Your task to perform on an android device: Search for lg ultragear on target.com, select the first entry, and add it to the cart. Image 0: 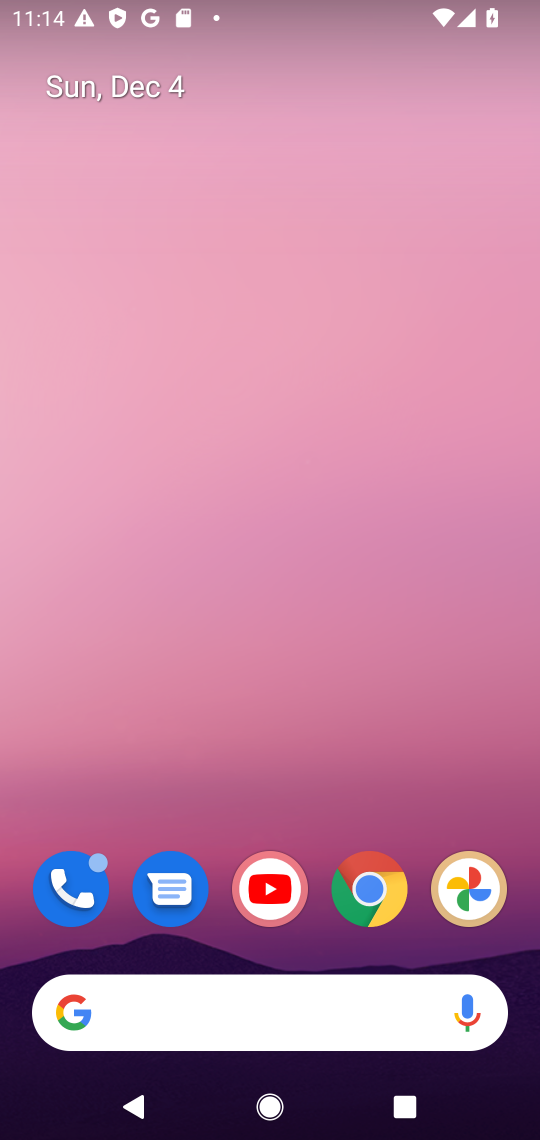
Step 0: click (363, 888)
Your task to perform on an android device: Search for lg ultragear on target.com, select the first entry, and add it to the cart. Image 1: 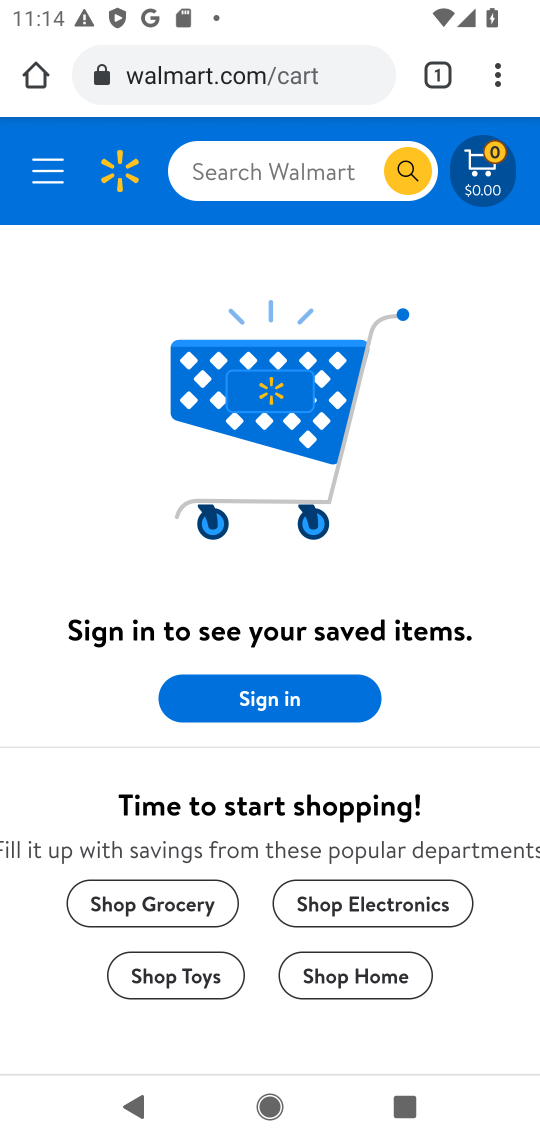
Step 1: click (291, 77)
Your task to perform on an android device: Search for lg ultragear on target.com, select the first entry, and add it to the cart. Image 2: 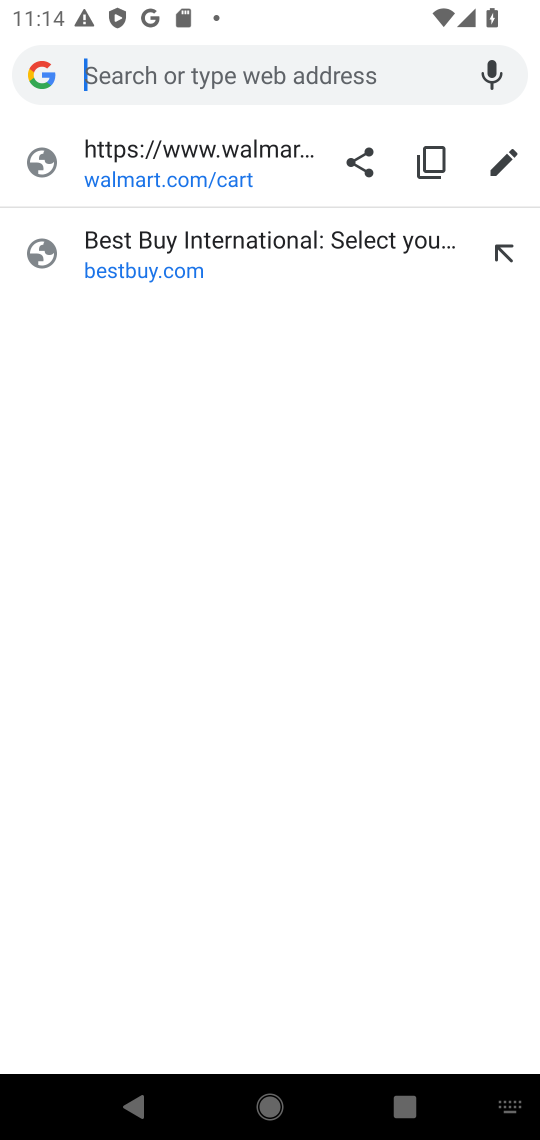
Step 2: type "target.com"
Your task to perform on an android device: Search for lg ultragear on target.com, select the first entry, and add it to the cart. Image 3: 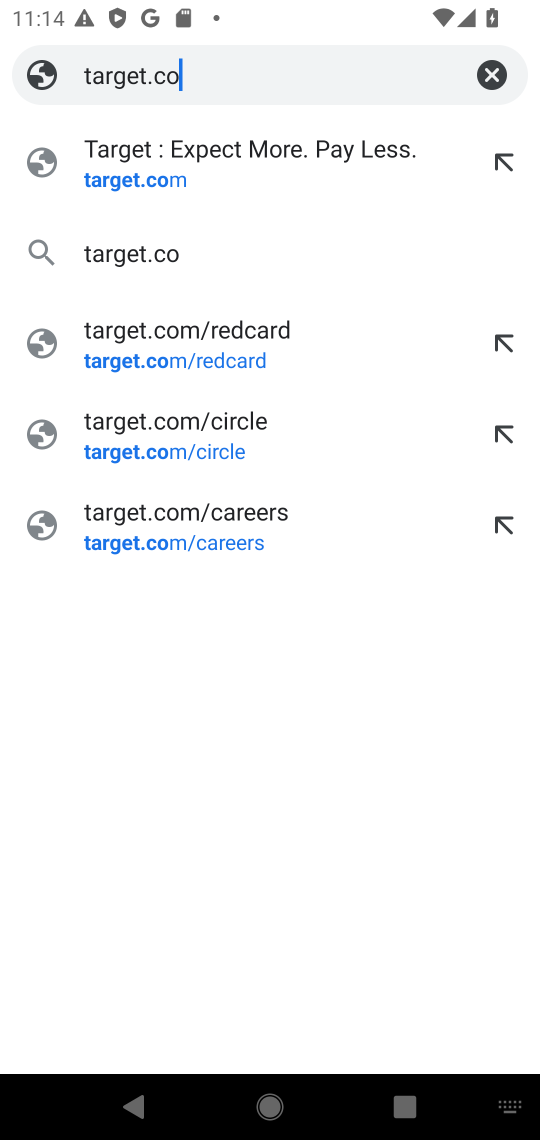
Step 3: press enter
Your task to perform on an android device: Search for lg ultragear on target.com, select the first entry, and add it to the cart. Image 4: 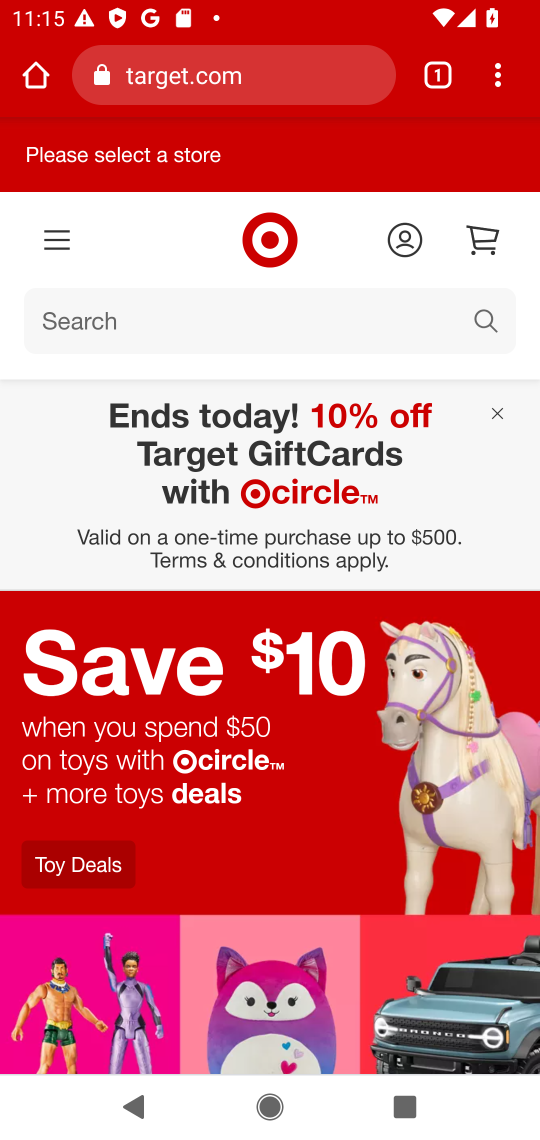
Step 4: click (479, 323)
Your task to perform on an android device: Search for lg ultragear on target.com, select the first entry, and add it to the cart. Image 5: 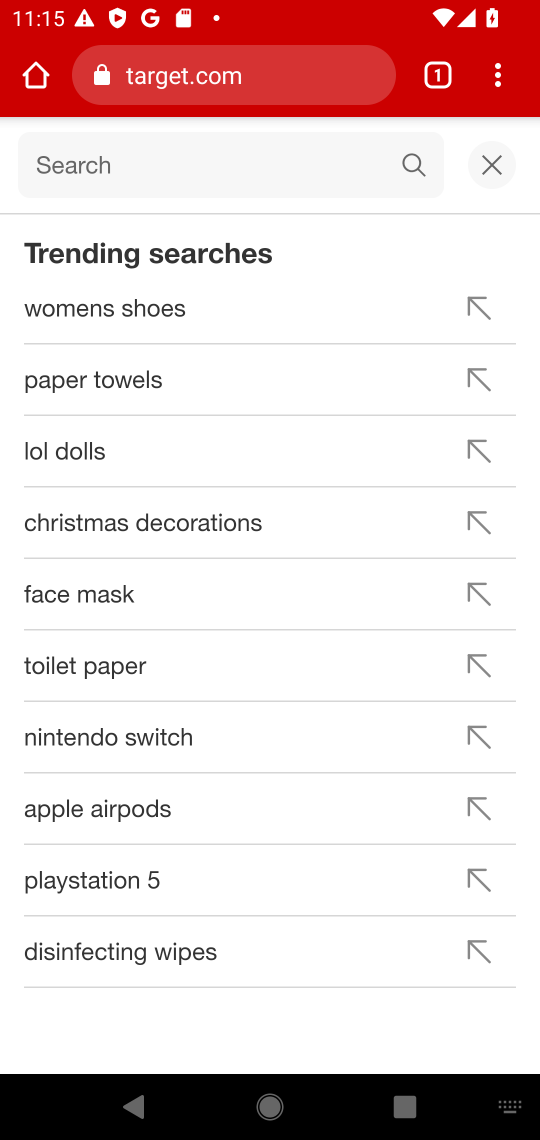
Step 5: type " lg ultragear"
Your task to perform on an android device: Search for lg ultragear on target.com, select the first entry, and add it to the cart. Image 6: 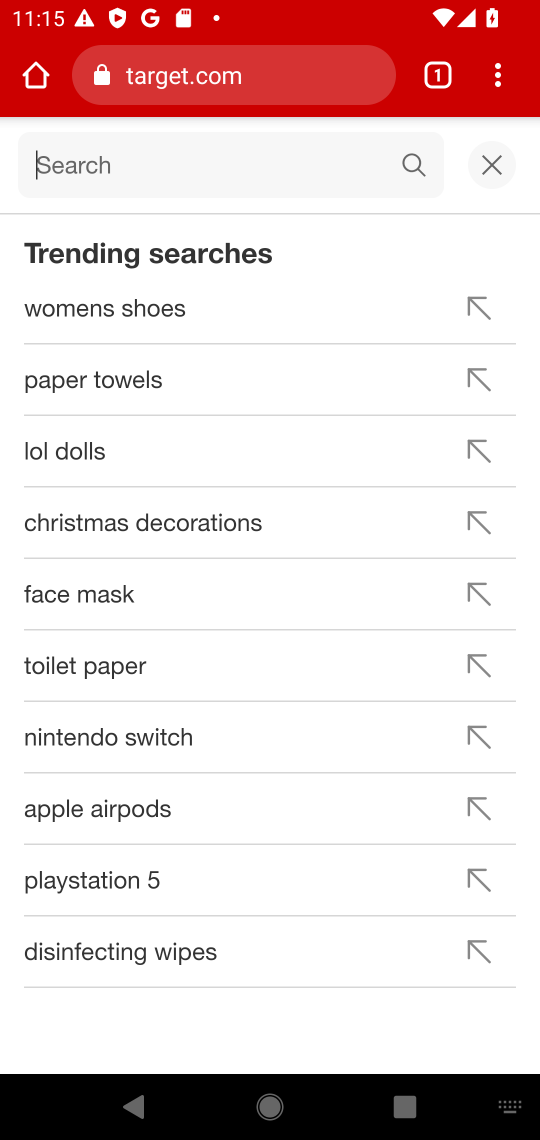
Step 6: press enter
Your task to perform on an android device: Search for lg ultragear on target.com, select the first entry, and add it to the cart. Image 7: 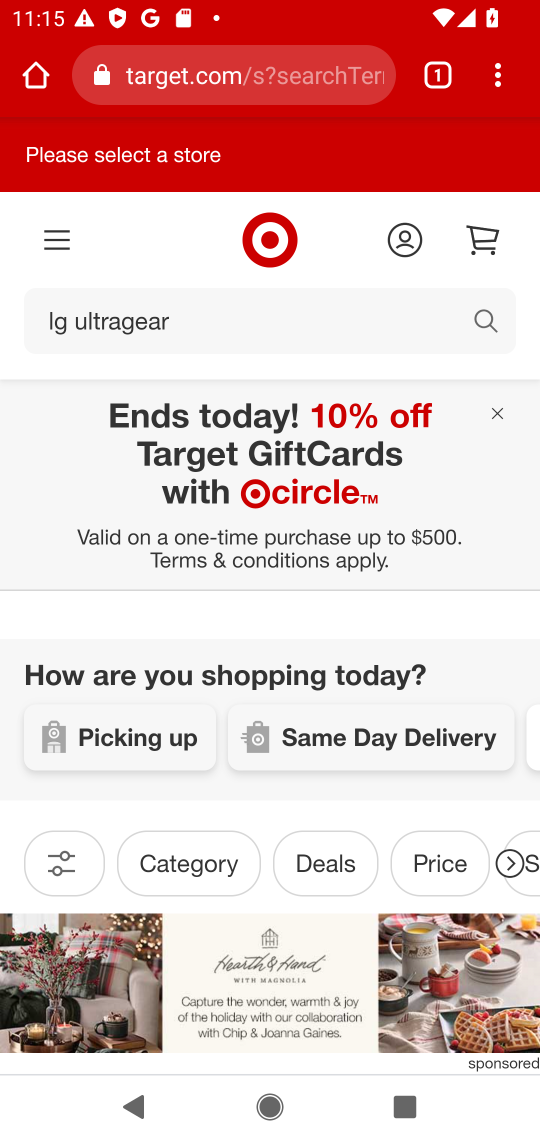
Step 7: drag from (324, 933) to (266, 340)
Your task to perform on an android device: Search for lg ultragear on target.com, select the first entry, and add it to the cart. Image 8: 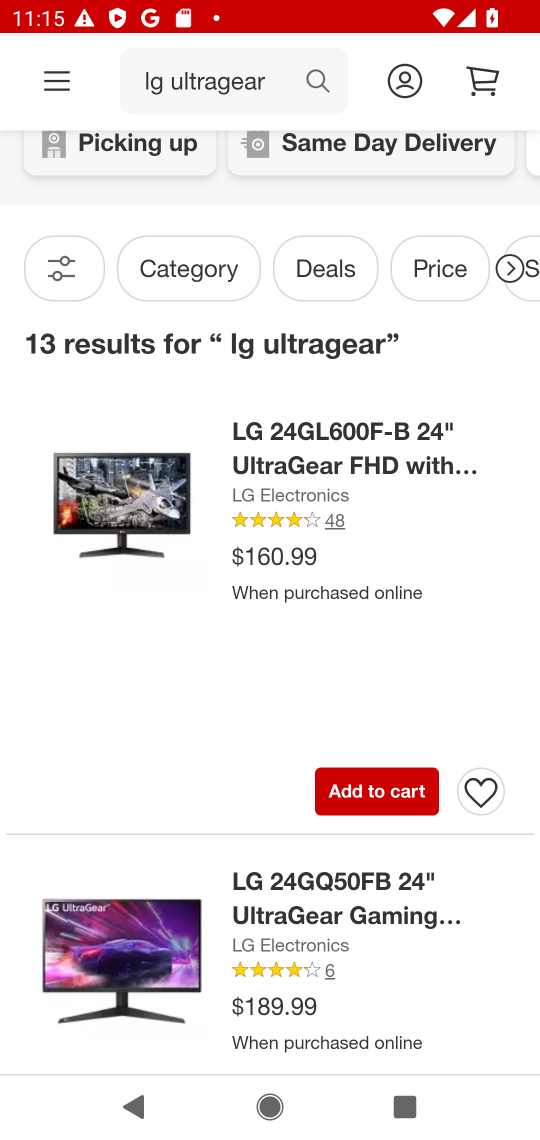
Step 8: click (72, 534)
Your task to perform on an android device: Search for lg ultragear on target.com, select the first entry, and add it to the cart. Image 9: 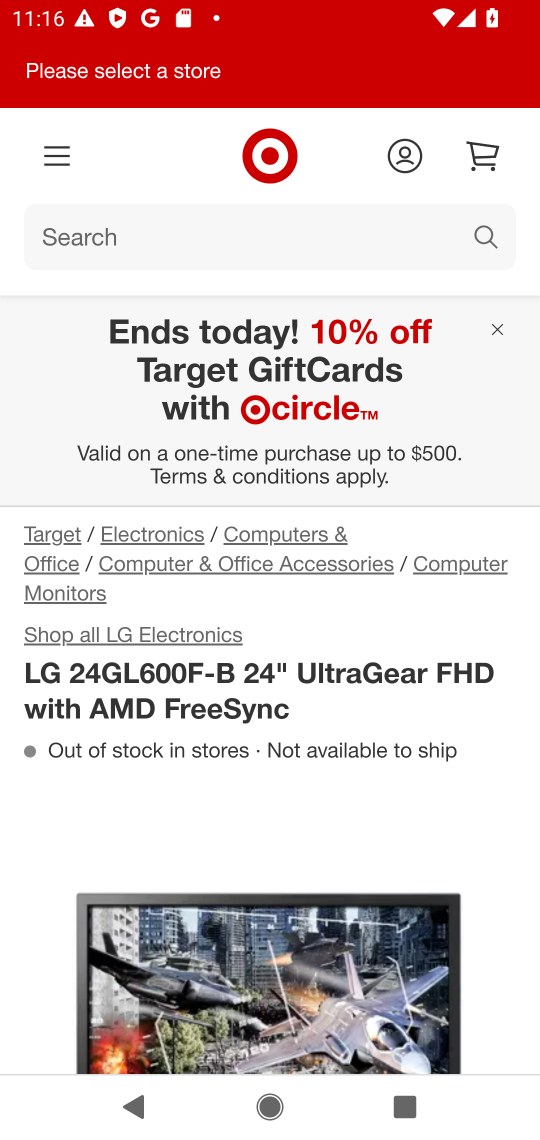
Step 9: click (391, 258)
Your task to perform on an android device: Search for lg ultragear on target.com, select the first entry, and add it to the cart. Image 10: 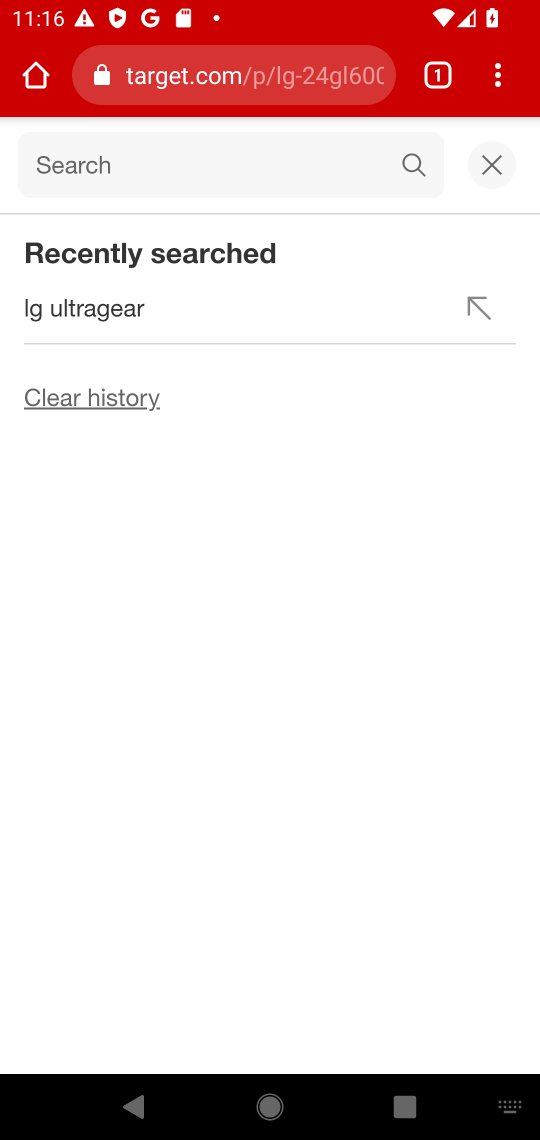
Step 10: click (126, 308)
Your task to perform on an android device: Search for lg ultragear on target.com, select the first entry, and add it to the cart. Image 11: 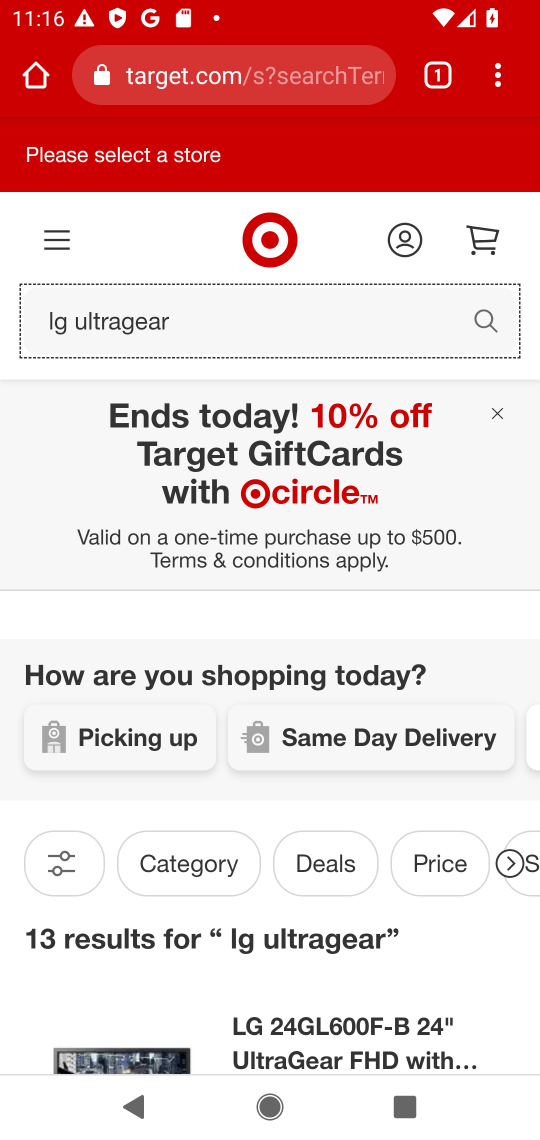
Step 11: drag from (387, 793) to (367, 290)
Your task to perform on an android device: Search for lg ultragear on target.com, select the first entry, and add it to the cart. Image 12: 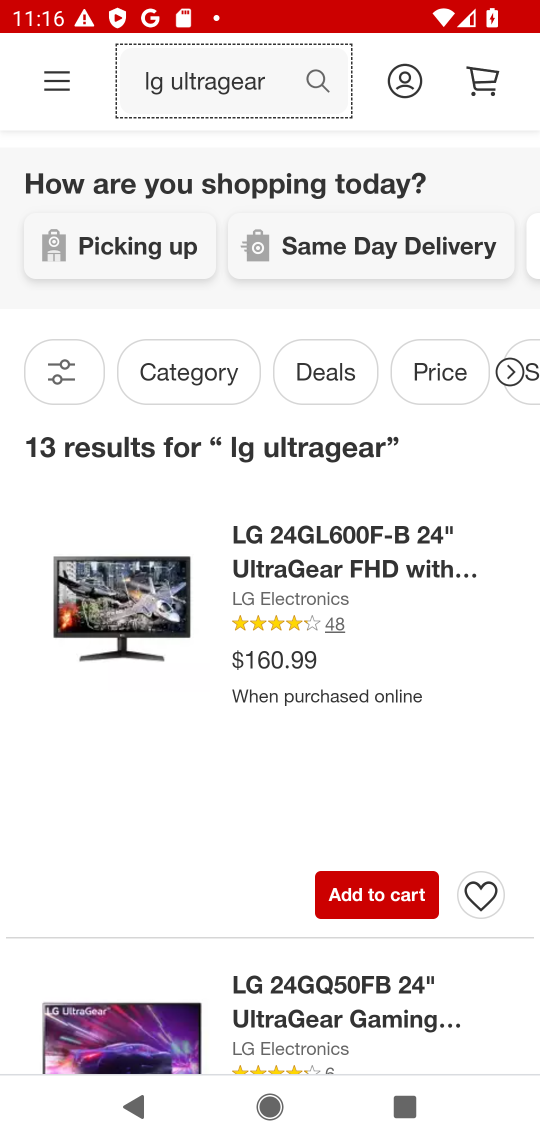
Step 12: click (118, 609)
Your task to perform on an android device: Search for lg ultragear on target.com, select the first entry, and add it to the cart. Image 13: 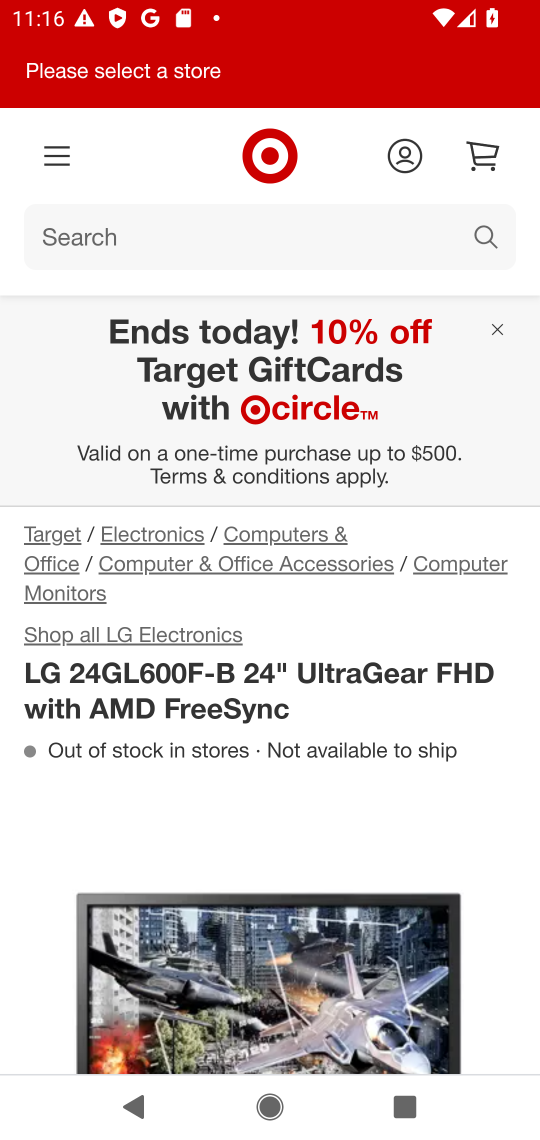
Step 13: drag from (445, 672) to (418, 419)
Your task to perform on an android device: Search for lg ultragear on target.com, select the first entry, and add it to the cart. Image 14: 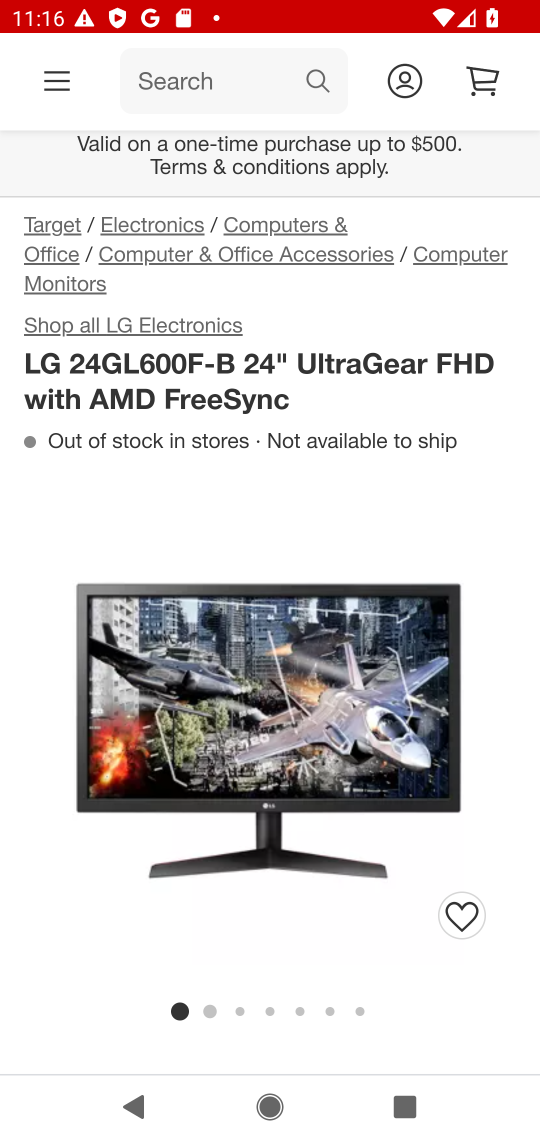
Step 14: drag from (483, 784) to (419, 437)
Your task to perform on an android device: Search for lg ultragear on target.com, select the first entry, and add it to the cart. Image 15: 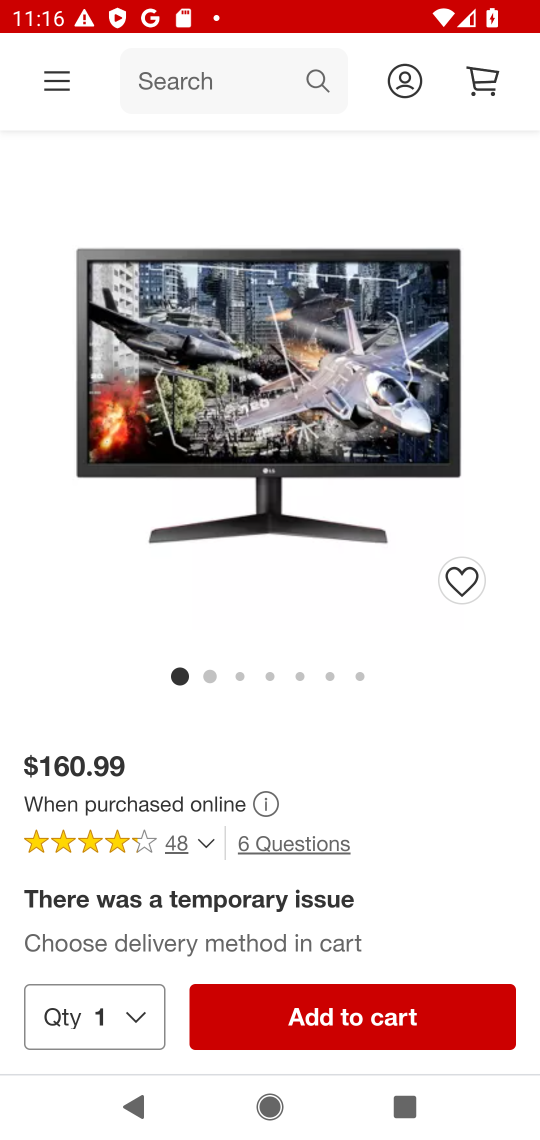
Step 15: click (396, 1002)
Your task to perform on an android device: Search for lg ultragear on target.com, select the first entry, and add it to the cart. Image 16: 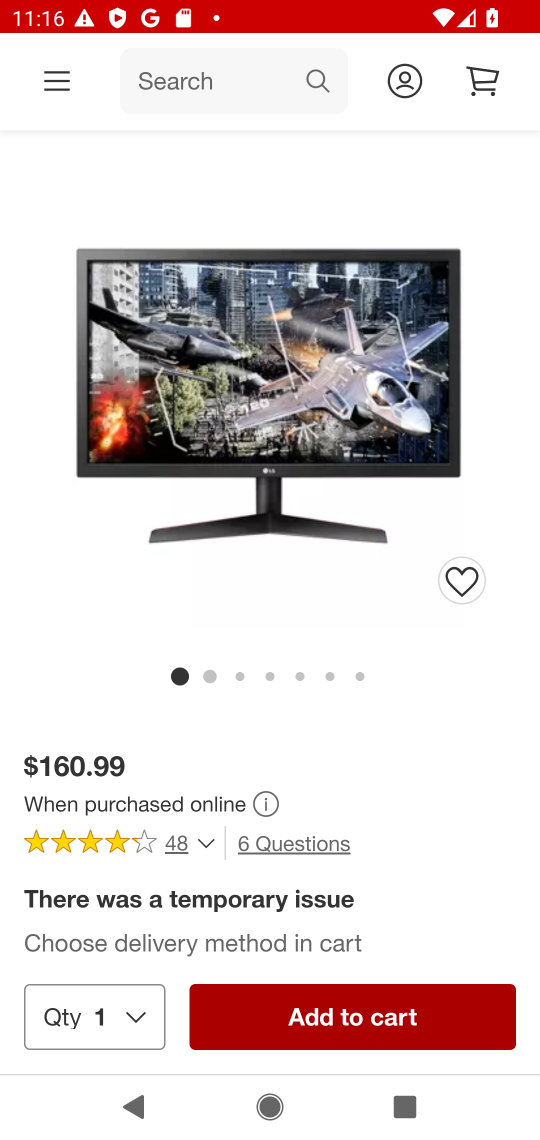
Step 16: click (353, 1017)
Your task to perform on an android device: Search for lg ultragear on target.com, select the first entry, and add it to the cart. Image 17: 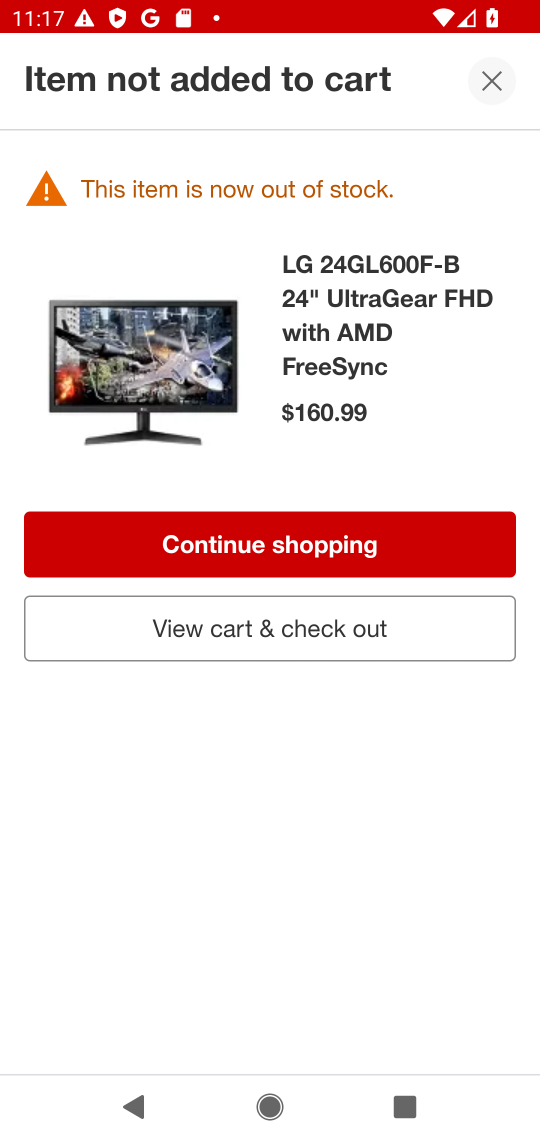
Step 17: click (494, 75)
Your task to perform on an android device: Search for lg ultragear on target.com, select the first entry, and add it to the cart. Image 18: 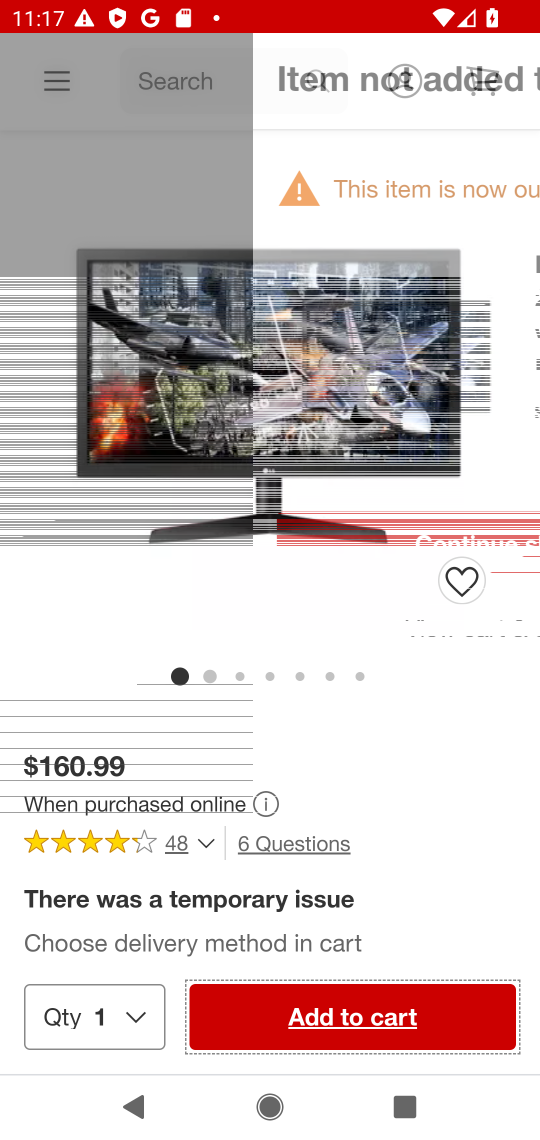
Step 18: press back button
Your task to perform on an android device: Search for lg ultragear on target.com, select the first entry, and add it to the cart. Image 19: 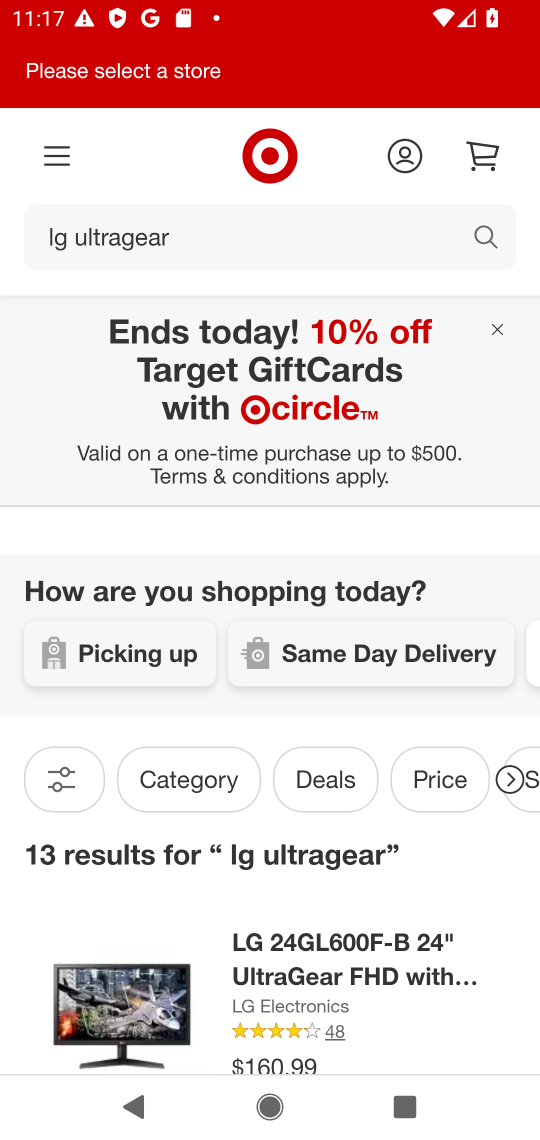
Step 19: drag from (375, 672) to (356, 124)
Your task to perform on an android device: Search for lg ultragear on target.com, select the first entry, and add it to the cart. Image 20: 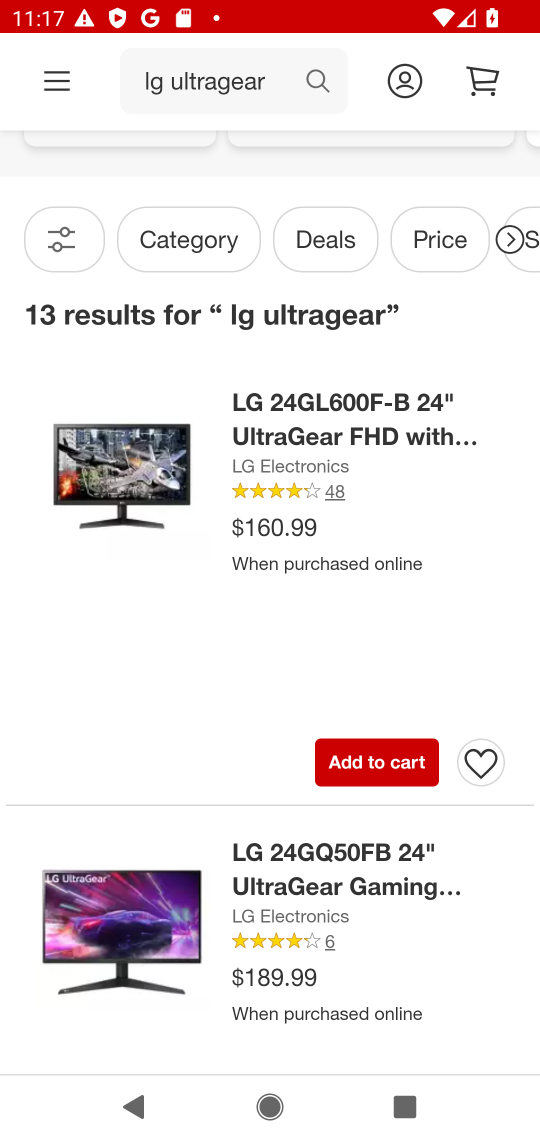
Step 20: drag from (394, 842) to (430, 246)
Your task to perform on an android device: Search for lg ultragear on target.com, select the first entry, and add it to the cart. Image 21: 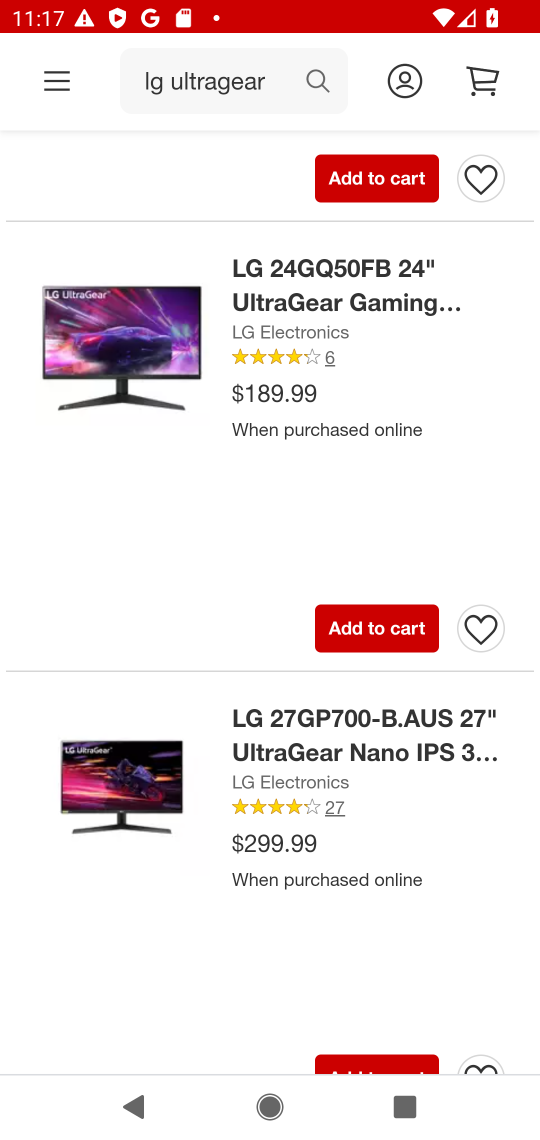
Step 21: click (118, 327)
Your task to perform on an android device: Search for lg ultragear on target.com, select the first entry, and add it to the cart. Image 22: 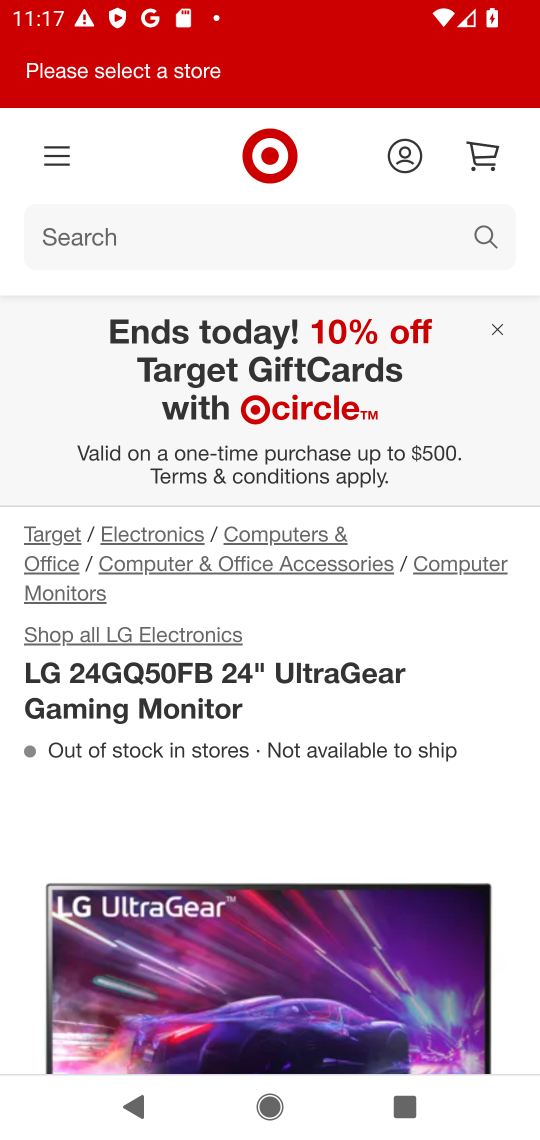
Step 22: task complete